Your task to perform on an android device: Go to settings Image 0: 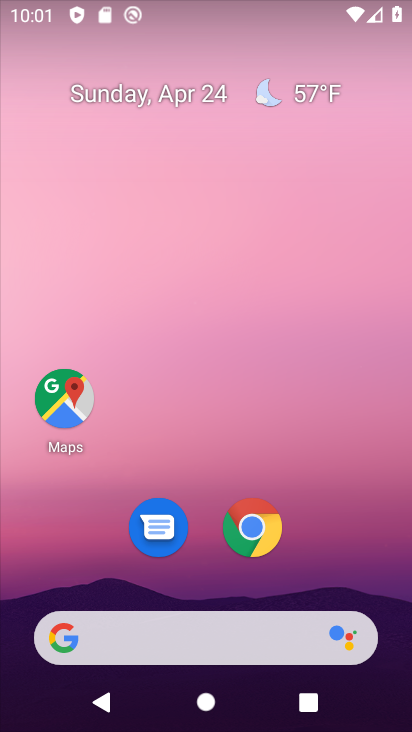
Step 0: drag from (258, 623) to (409, 577)
Your task to perform on an android device: Go to settings Image 1: 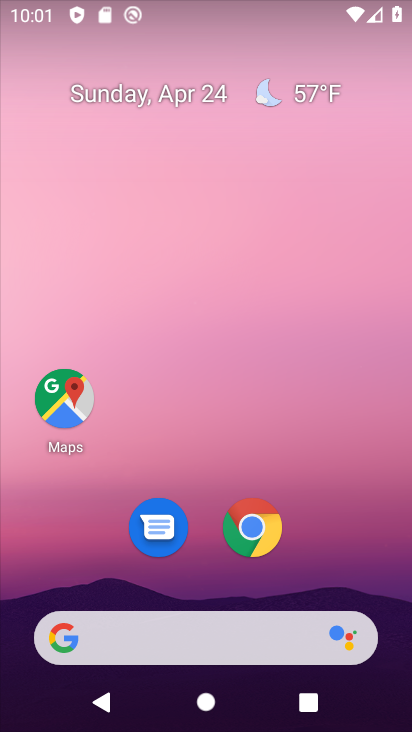
Step 1: drag from (280, 546) to (249, 62)
Your task to perform on an android device: Go to settings Image 2: 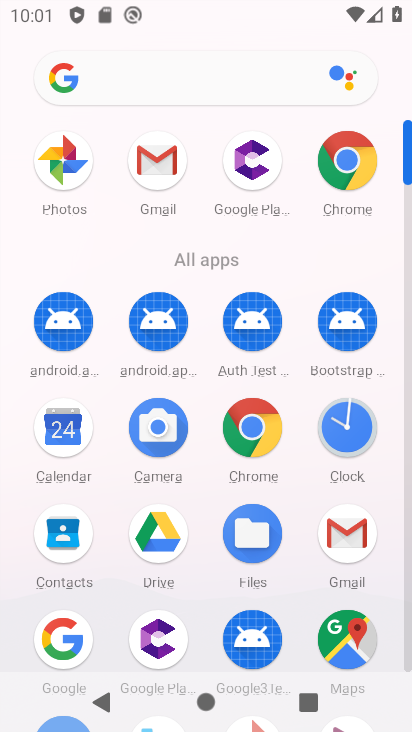
Step 2: drag from (288, 403) to (260, 60)
Your task to perform on an android device: Go to settings Image 3: 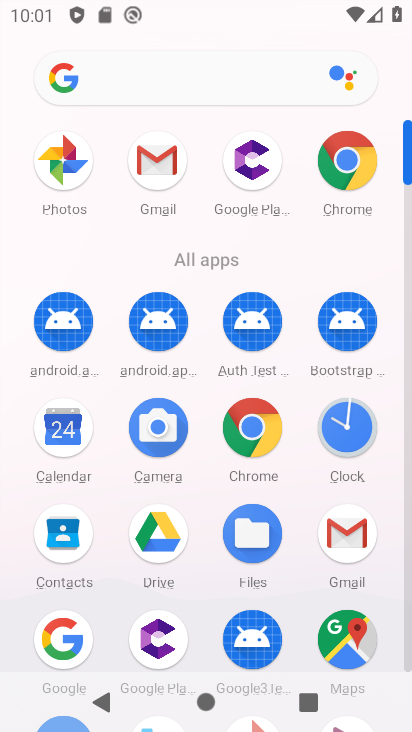
Step 3: drag from (302, 621) to (220, 136)
Your task to perform on an android device: Go to settings Image 4: 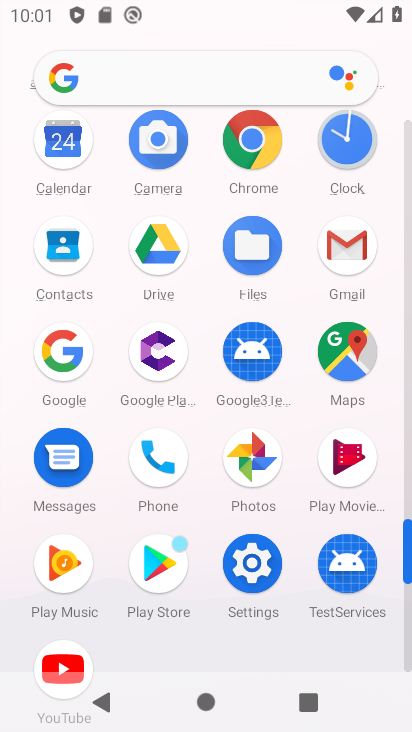
Step 4: drag from (269, 549) to (248, 78)
Your task to perform on an android device: Go to settings Image 5: 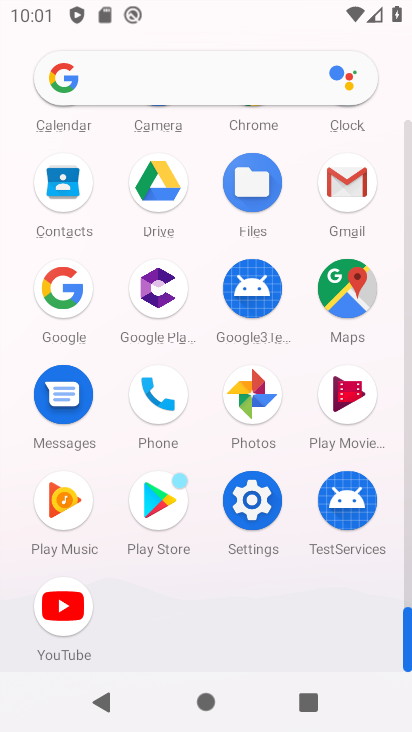
Step 5: click (253, 496)
Your task to perform on an android device: Go to settings Image 6: 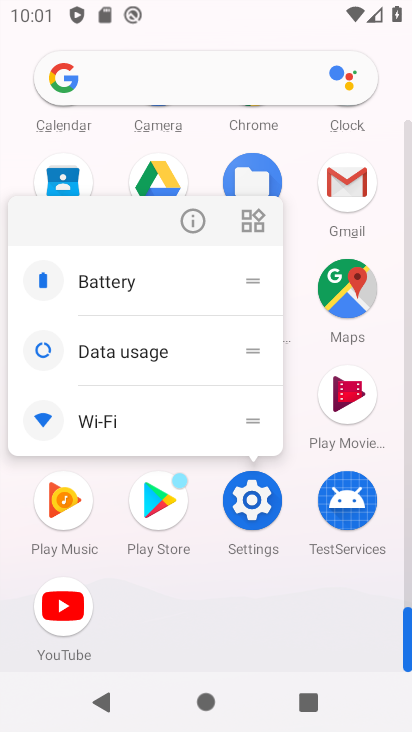
Step 6: click (247, 605)
Your task to perform on an android device: Go to settings Image 7: 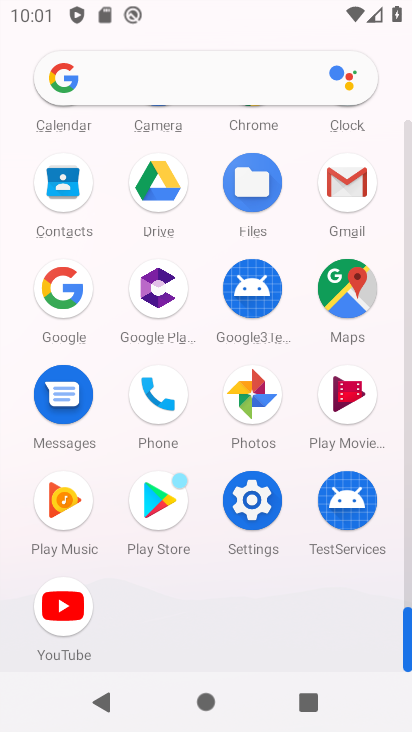
Step 7: click (258, 499)
Your task to perform on an android device: Go to settings Image 8: 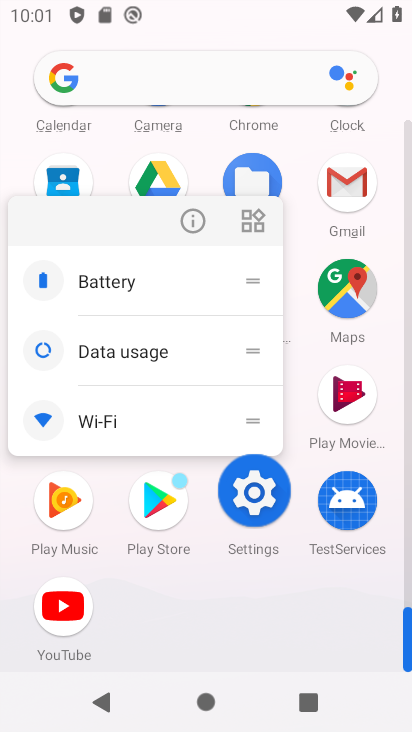
Step 8: click (260, 488)
Your task to perform on an android device: Go to settings Image 9: 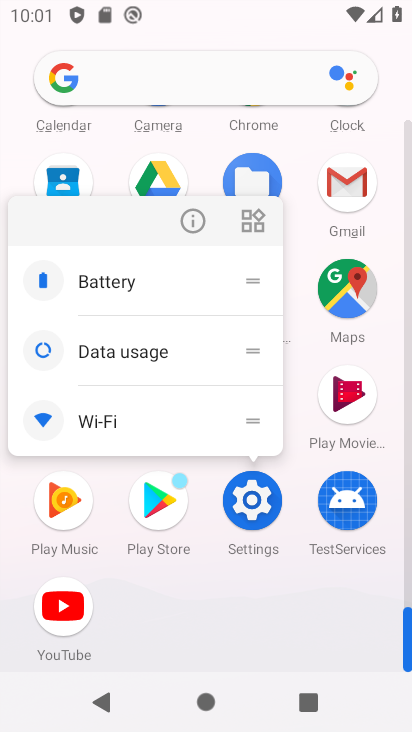
Step 9: click (253, 484)
Your task to perform on an android device: Go to settings Image 10: 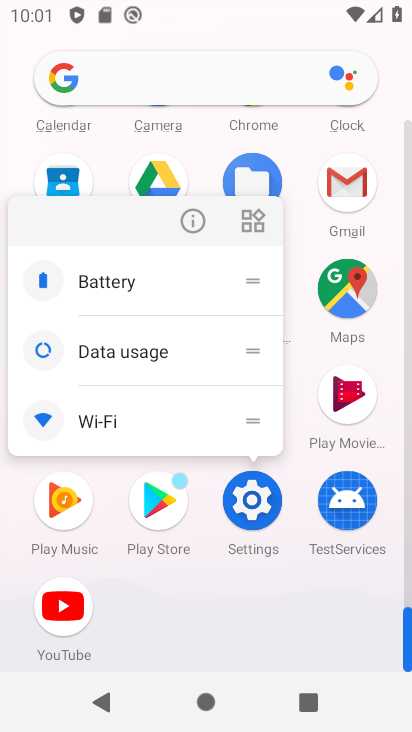
Step 10: task complete